Your task to perform on an android device: When is my next meeting? Image 0: 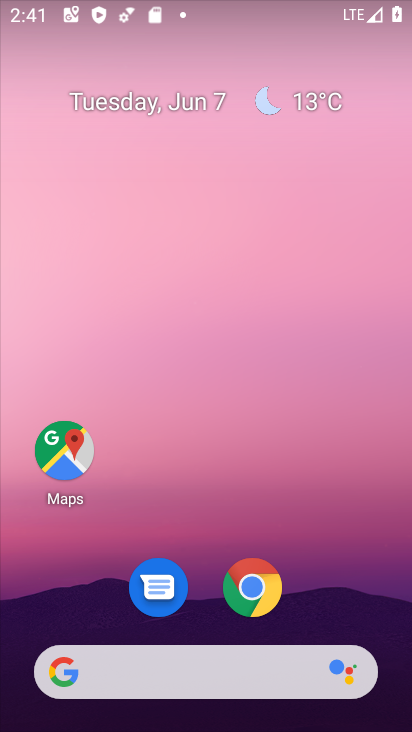
Step 0: drag from (227, 639) to (251, 8)
Your task to perform on an android device: When is my next meeting? Image 1: 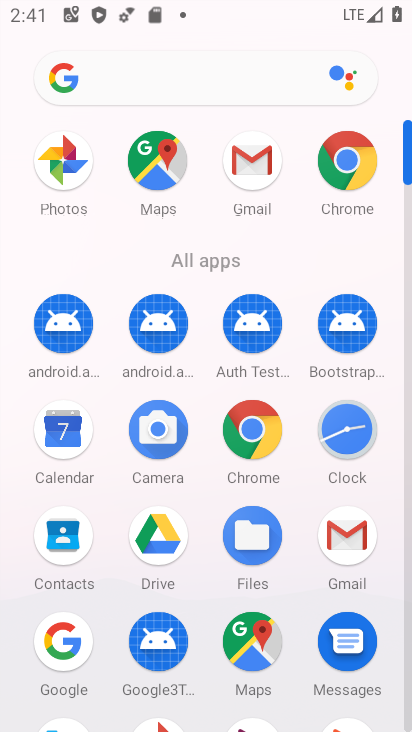
Step 1: click (72, 438)
Your task to perform on an android device: When is my next meeting? Image 2: 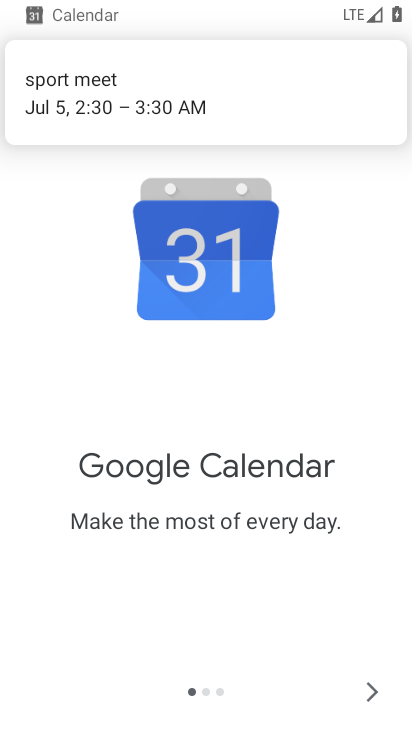
Step 2: click (363, 708)
Your task to perform on an android device: When is my next meeting? Image 3: 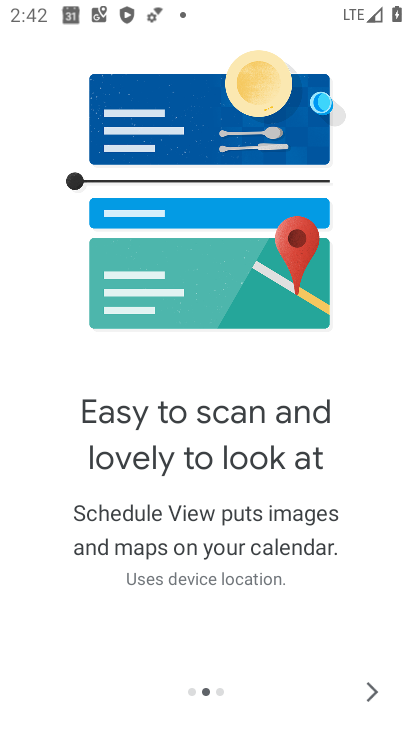
Step 3: click (366, 689)
Your task to perform on an android device: When is my next meeting? Image 4: 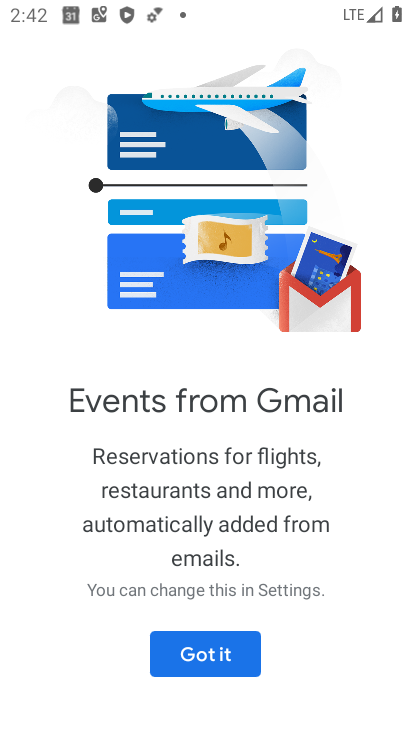
Step 4: click (216, 645)
Your task to perform on an android device: When is my next meeting? Image 5: 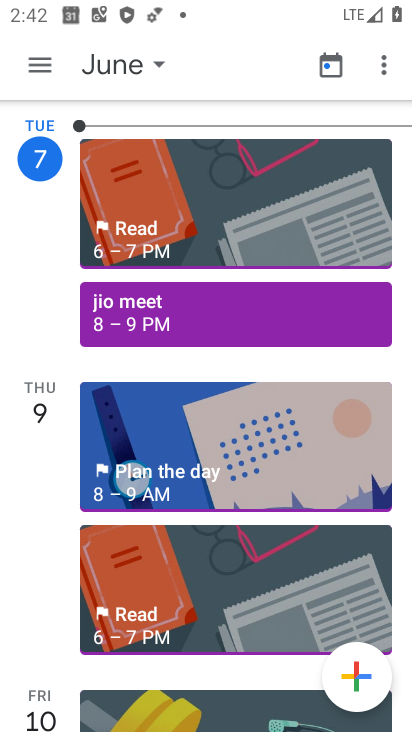
Step 5: click (39, 51)
Your task to perform on an android device: When is my next meeting? Image 6: 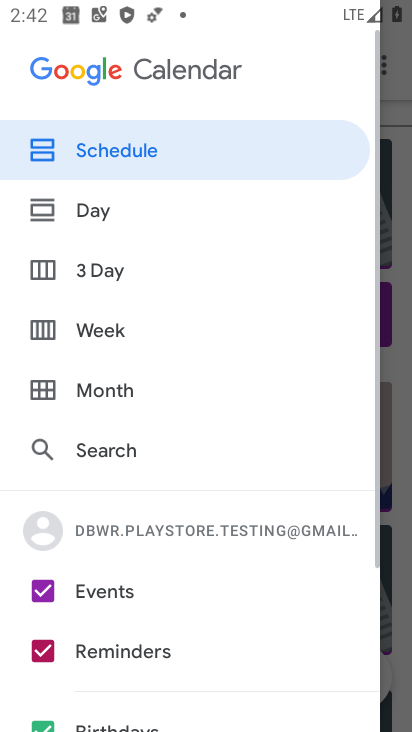
Step 6: click (106, 332)
Your task to perform on an android device: When is my next meeting? Image 7: 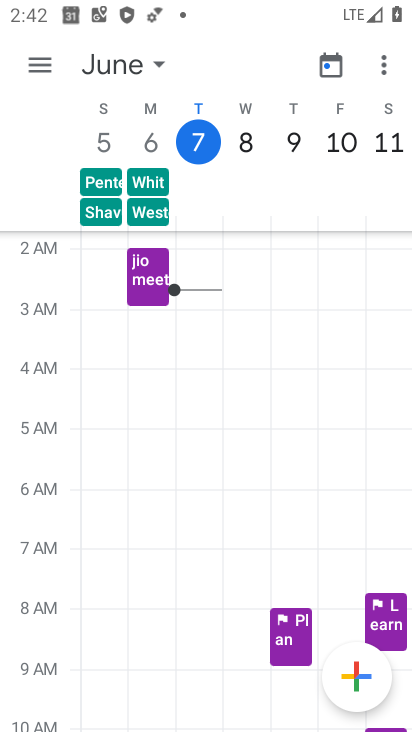
Step 7: task complete